Your task to perform on an android device: What's on the menu at Papa John's? Image 0: 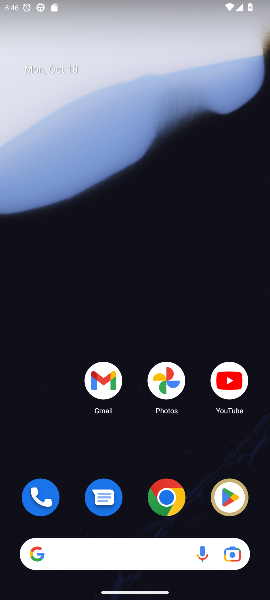
Step 0: drag from (158, 456) to (158, 187)
Your task to perform on an android device: What's on the menu at Papa John's? Image 1: 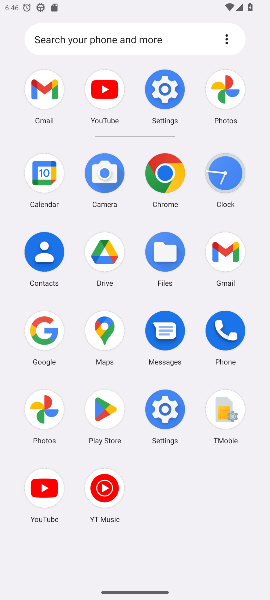
Step 1: click (35, 325)
Your task to perform on an android device: What's on the menu at Papa John's? Image 2: 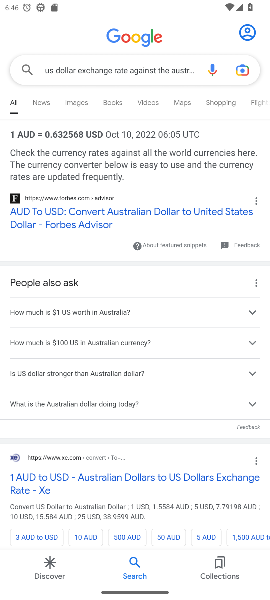
Step 2: click (178, 63)
Your task to perform on an android device: What's on the menu at Papa John's? Image 3: 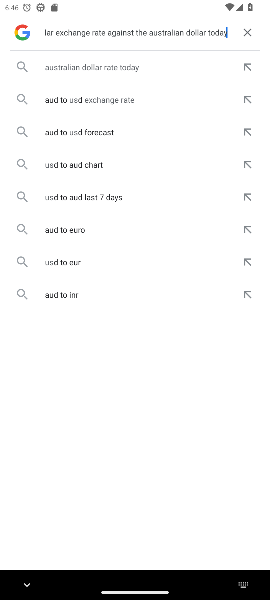
Step 3: click (244, 31)
Your task to perform on an android device: What's on the menu at Papa John's? Image 4: 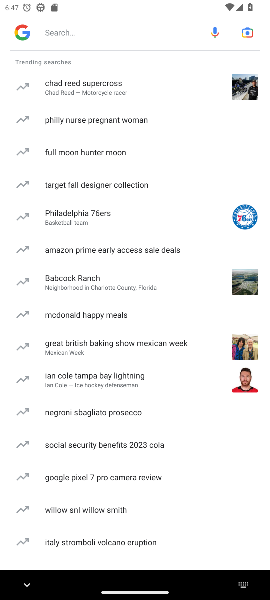
Step 4: click (94, 31)
Your task to perform on an android device: What's on the menu at Papa John's? Image 5: 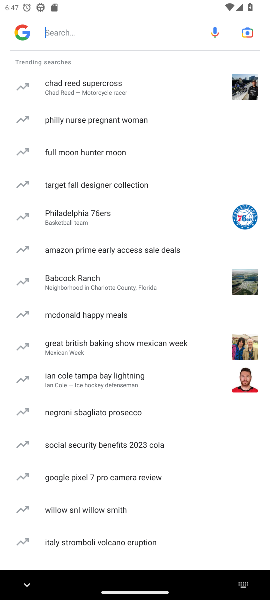
Step 5: type "What's on the menu at Papa John's? "
Your task to perform on an android device: What's on the menu at Papa John's? Image 6: 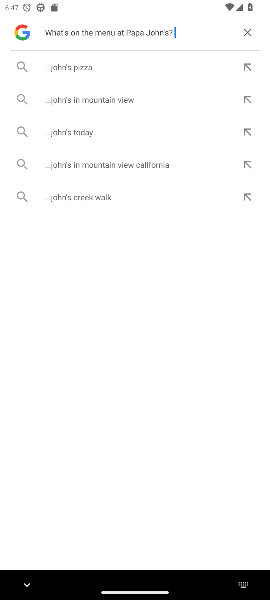
Step 6: click (73, 63)
Your task to perform on an android device: What's on the menu at Papa John's? Image 7: 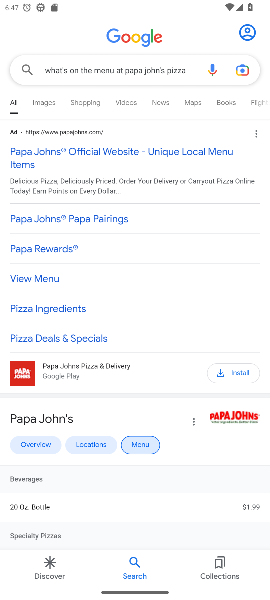
Step 7: task complete